Your task to perform on an android device: Go to battery settings Image 0: 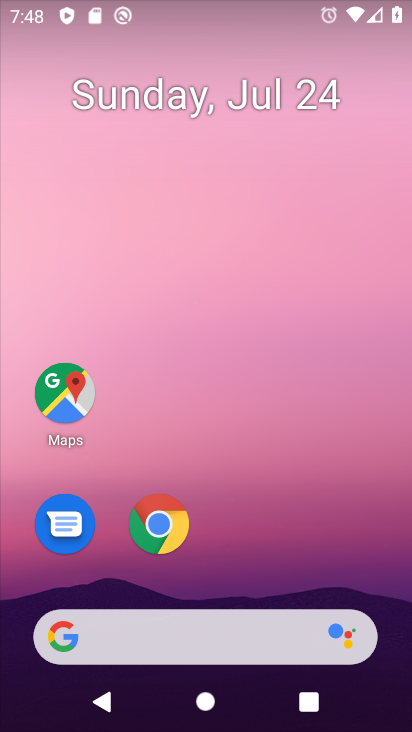
Step 0: drag from (230, 435) to (294, 0)
Your task to perform on an android device: Go to battery settings Image 1: 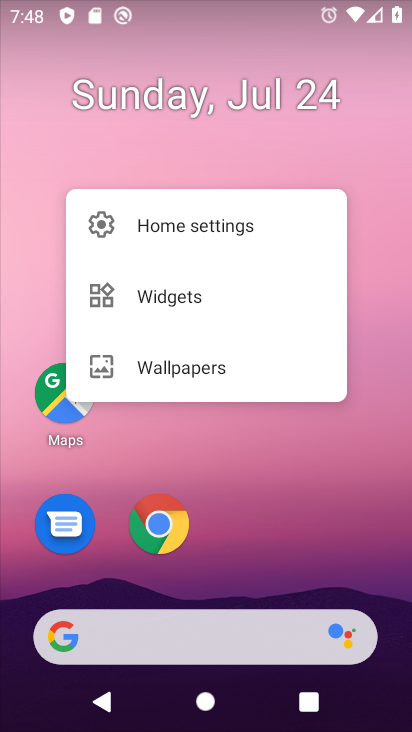
Step 1: click (328, 455)
Your task to perform on an android device: Go to battery settings Image 2: 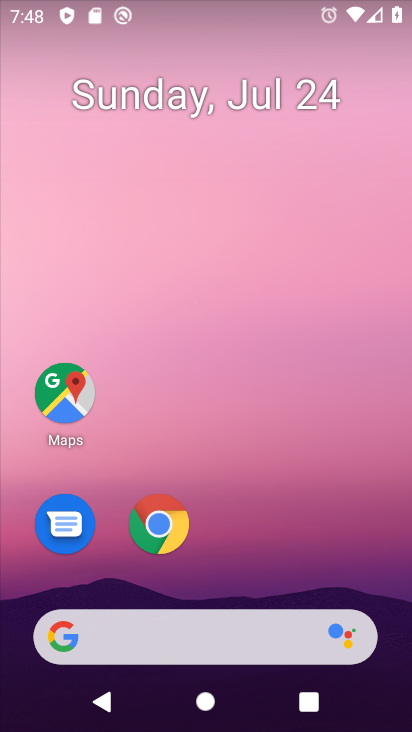
Step 2: drag from (241, 568) to (290, 44)
Your task to perform on an android device: Go to battery settings Image 3: 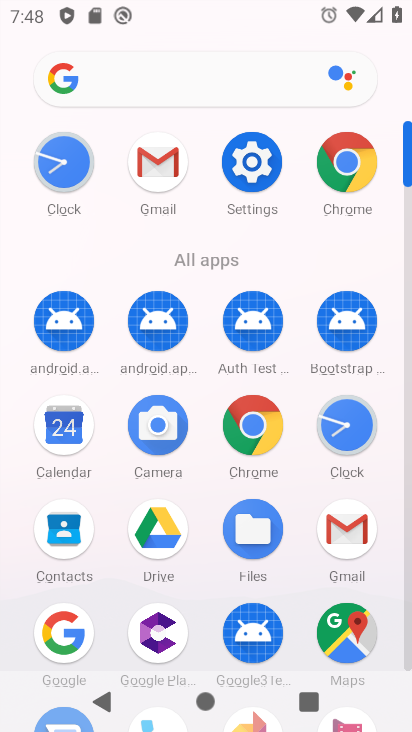
Step 3: click (255, 165)
Your task to perform on an android device: Go to battery settings Image 4: 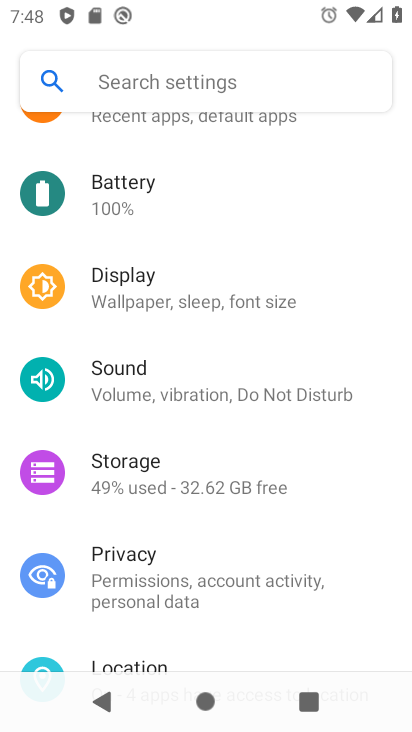
Step 4: click (169, 195)
Your task to perform on an android device: Go to battery settings Image 5: 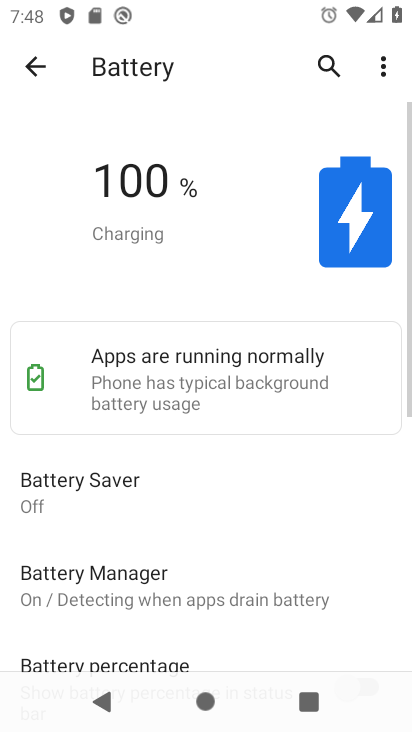
Step 5: task complete